Your task to perform on an android device: toggle notifications settings in the gmail app Image 0: 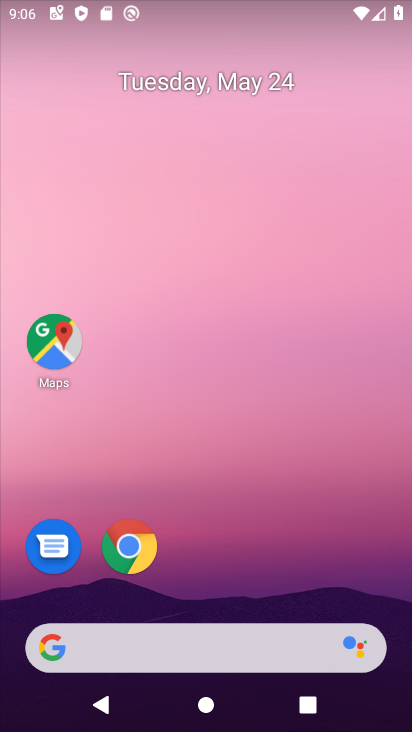
Step 0: drag from (190, 551) to (235, 248)
Your task to perform on an android device: toggle notifications settings in the gmail app Image 1: 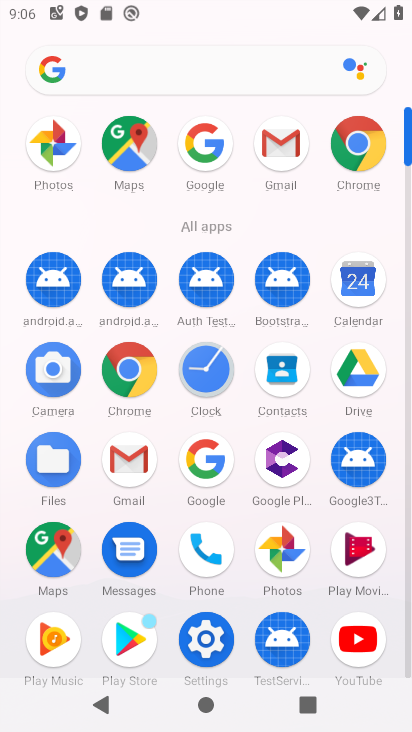
Step 1: click (273, 153)
Your task to perform on an android device: toggle notifications settings in the gmail app Image 2: 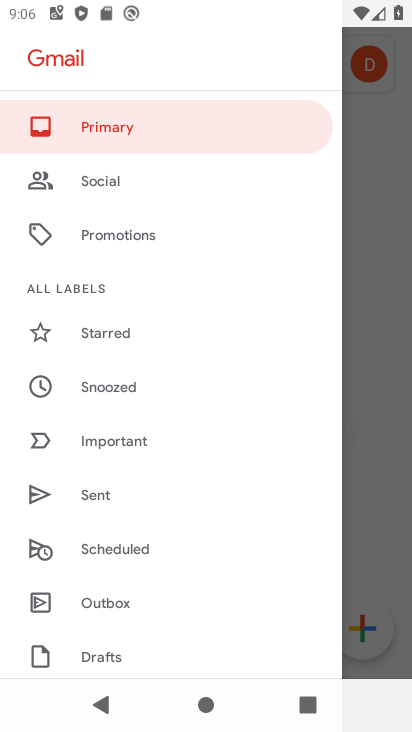
Step 2: drag from (157, 650) to (156, 231)
Your task to perform on an android device: toggle notifications settings in the gmail app Image 3: 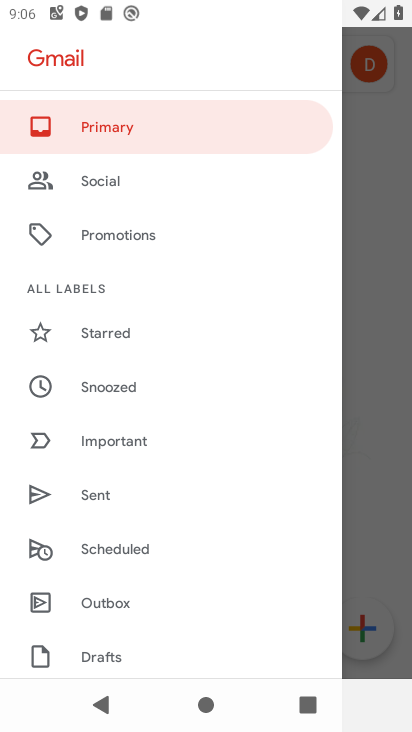
Step 3: drag from (99, 648) to (160, 206)
Your task to perform on an android device: toggle notifications settings in the gmail app Image 4: 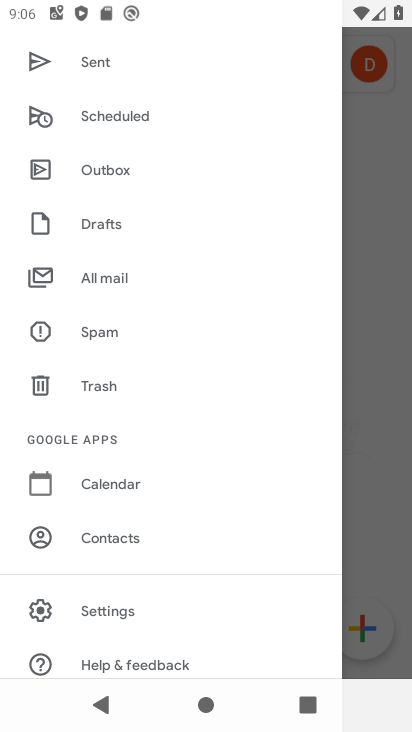
Step 4: click (116, 614)
Your task to perform on an android device: toggle notifications settings in the gmail app Image 5: 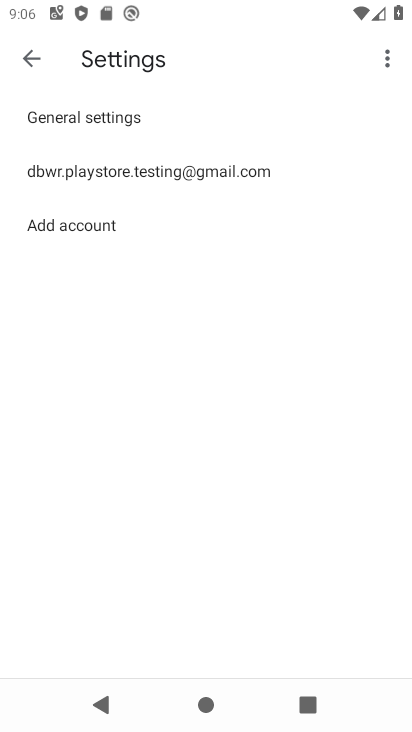
Step 5: click (103, 172)
Your task to perform on an android device: toggle notifications settings in the gmail app Image 6: 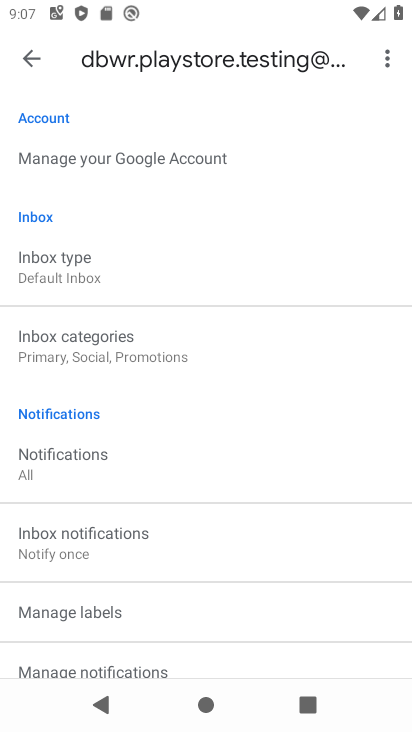
Step 6: click (29, 57)
Your task to perform on an android device: toggle notifications settings in the gmail app Image 7: 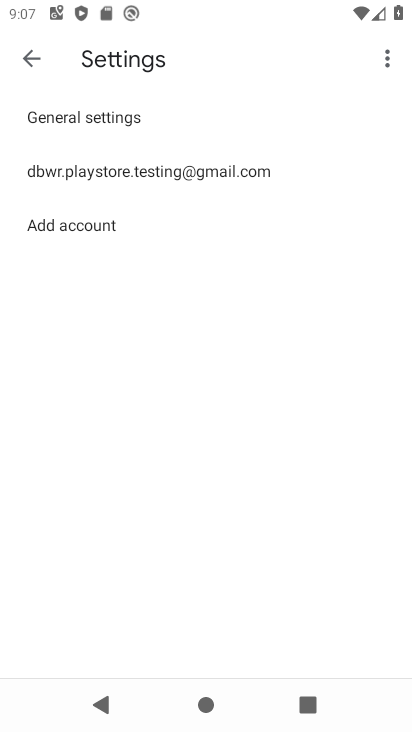
Step 7: click (66, 122)
Your task to perform on an android device: toggle notifications settings in the gmail app Image 8: 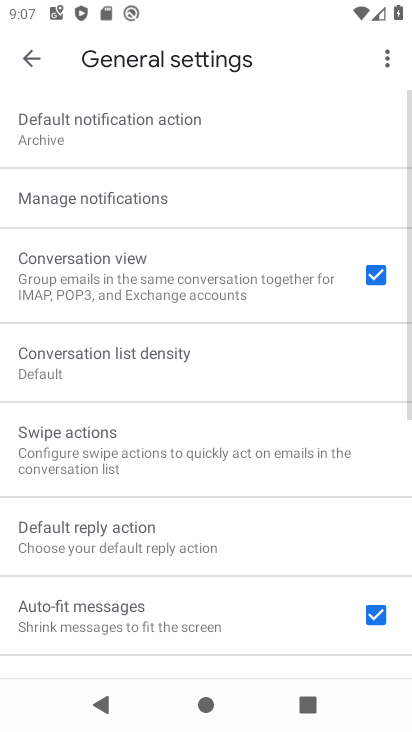
Step 8: click (84, 196)
Your task to perform on an android device: toggle notifications settings in the gmail app Image 9: 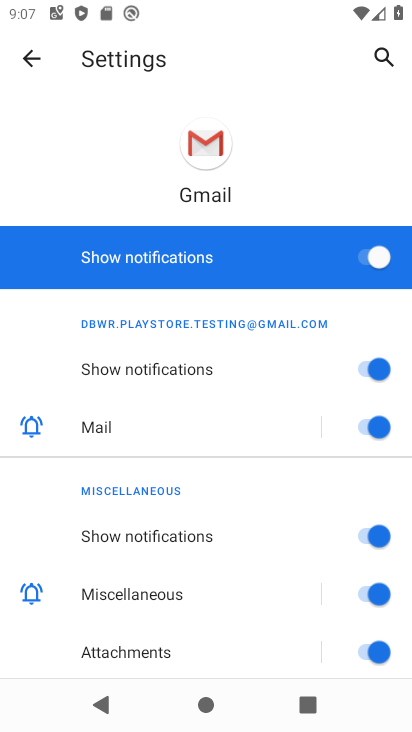
Step 9: click (371, 260)
Your task to perform on an android device: toggle notifications settings in the gmail app Image 10: 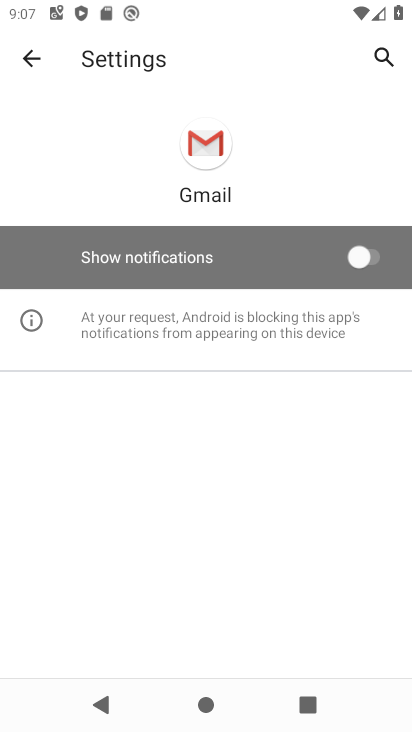
Step 10: task complete